Your task to perform on an android device: Open the map Image 0: 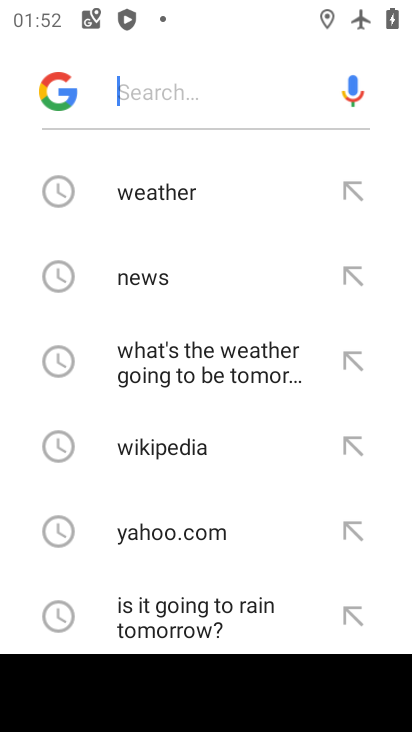
Step 0: press back button
Your task to perform on an android device: Open the map Image 1: 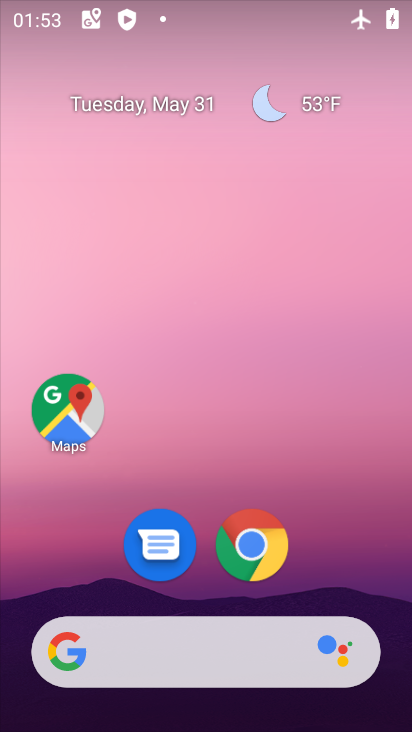
Step 1: click (85, 396)
Your task to perform on an android device: Open the map Image 2: 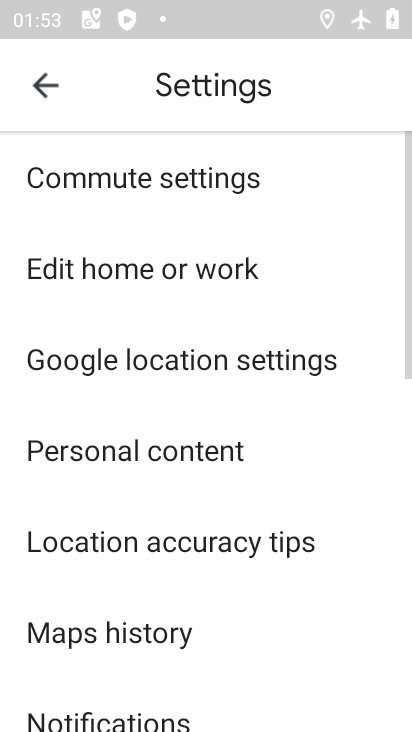
Step 2: click (44, 90)
Your task to perform on an android device: Open the map Image 3: 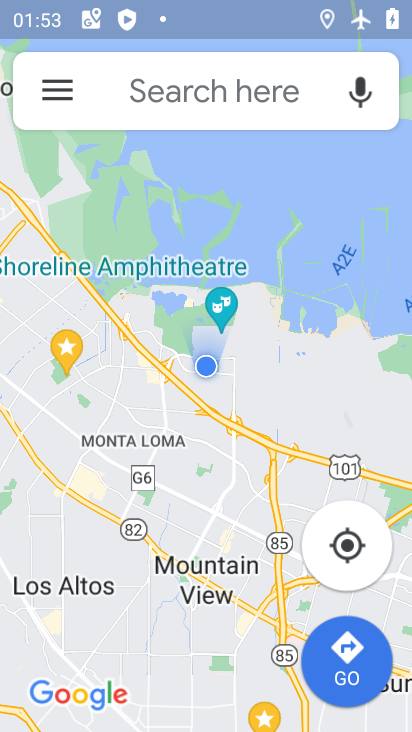
Step 3: task complete